Your task to perform on an android device: snooze an email in the gmail app Image 0: 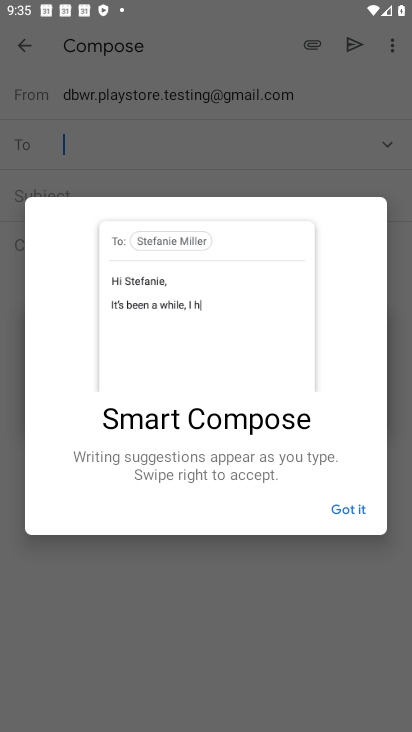
Step 0: press home button
Your task to perform on an android device: snooze an email in the gmail app Image 1: 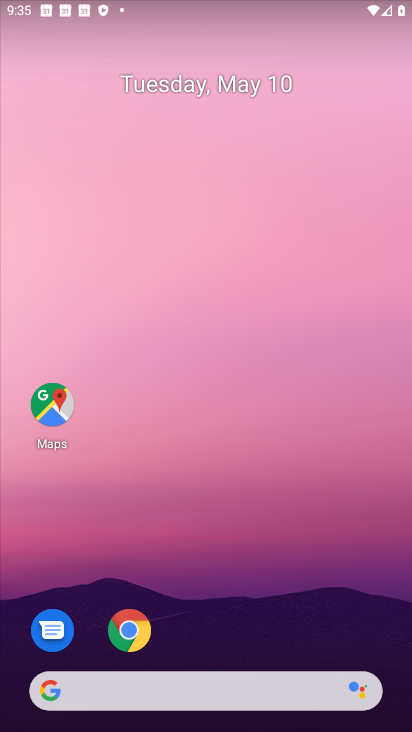
Step 1: drag from (226, 723) to (275, 120)
Your task to perform on an android device: snooze an email in the gmail app Image 2: 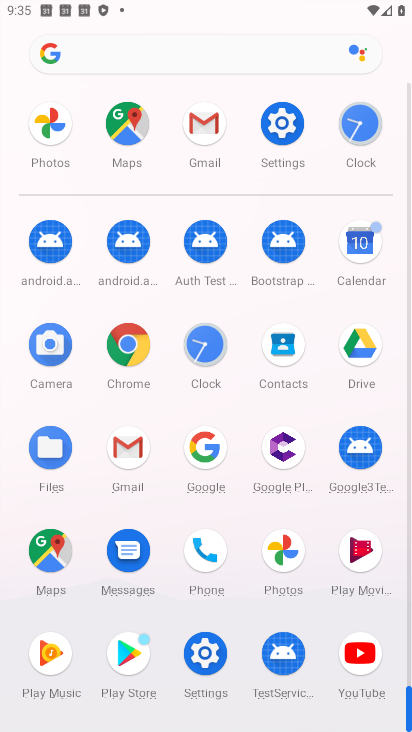
Step 2: click (196, 129)
Your task to perform on an android device: snooze an email in the gmail app Image 3: 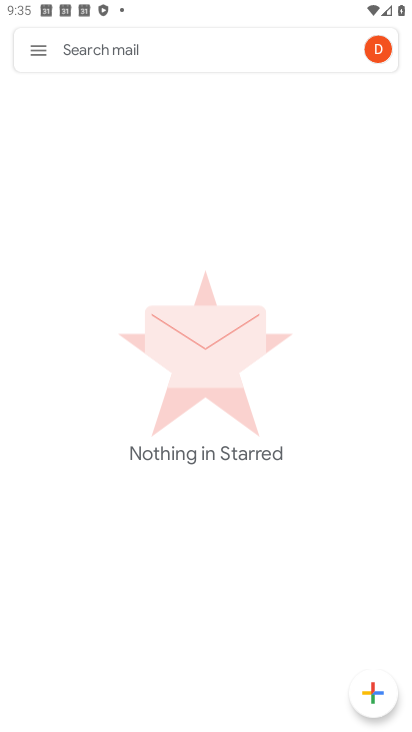
Step 3: click (42, 54)
Your task to perform on an android device: snooze an email in the gmail app Image 4: 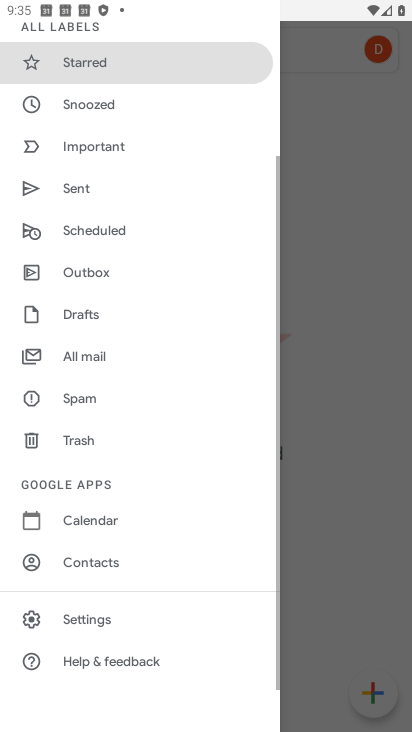
Step 4: click (121, 357)
Your task to perform on an android device: snooze an email in the gmail app Image 5: 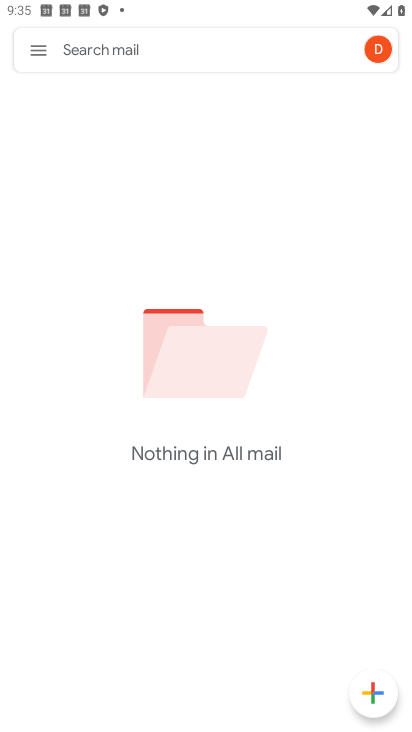
Step 5: task complete